Your task to perform on an android device: Open eBay Image 0: 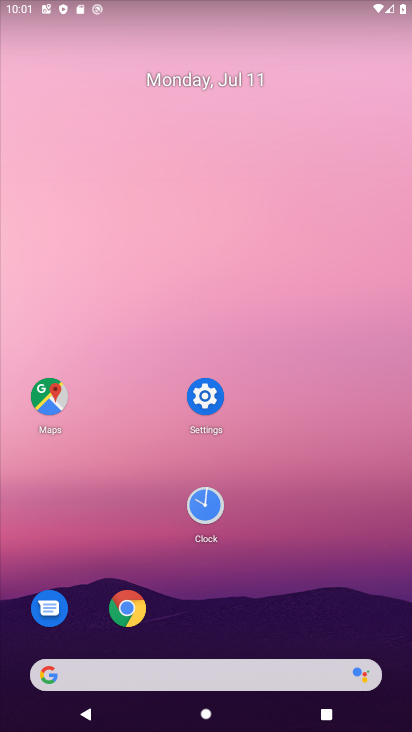
Step 0: click (121, 609)
Your task to perform on an android device: Open eBay Image 1: 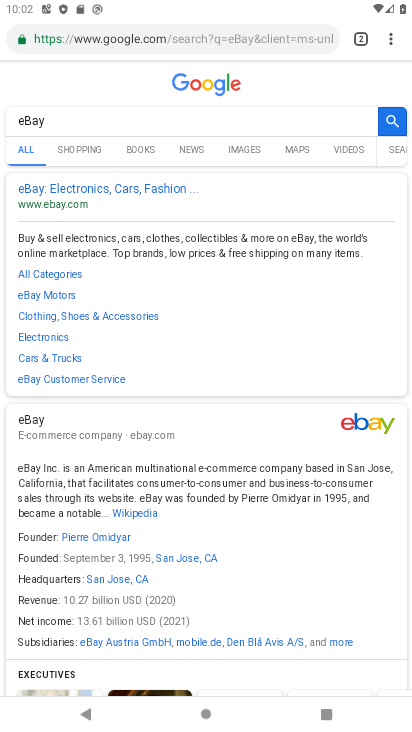
Step 1: click (326, 37)
Your task to perform on an android device: Open eBay Image 2: 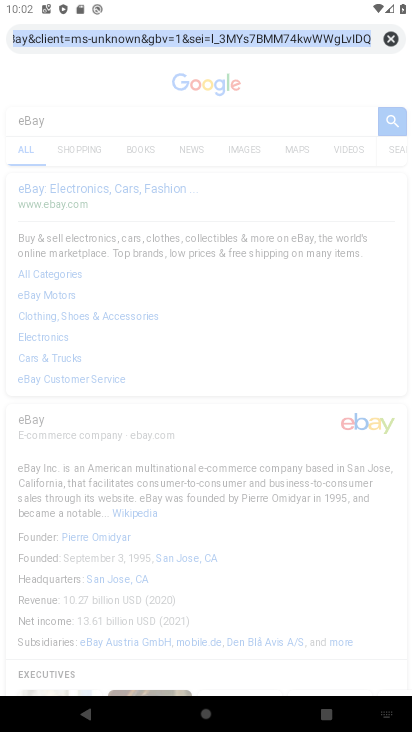
Step 2: click (389, 31)
Your task to perform on an android device: Open eBay Image 3: 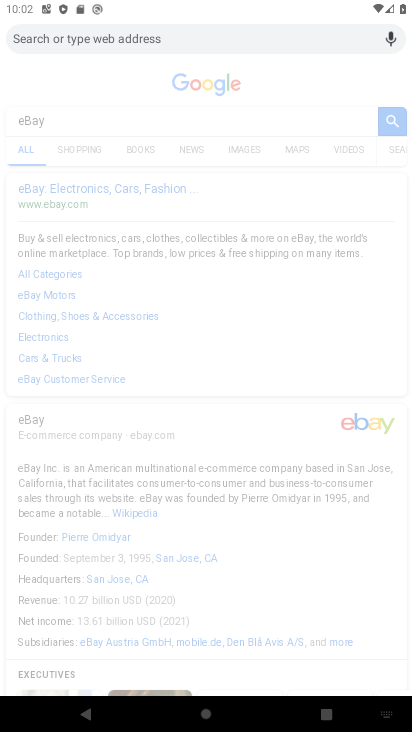
Step 3: type "eBay"
Your task to perform on an android device: Open eBay Image 4: 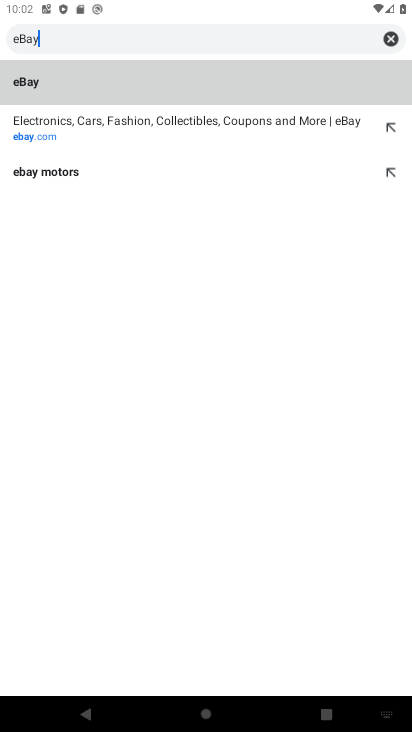
Step 4: click (39, 80)
Your task to perform on an android device: Open eBay Image 5: 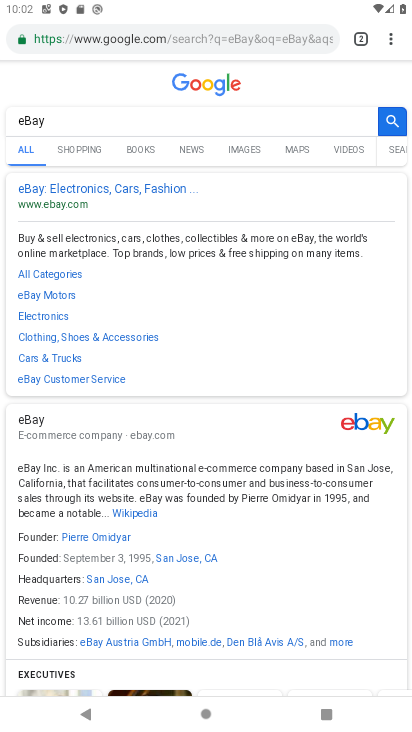
Step 5: task complete